Your task to perform on an android device: change keyboard looks Image 0: 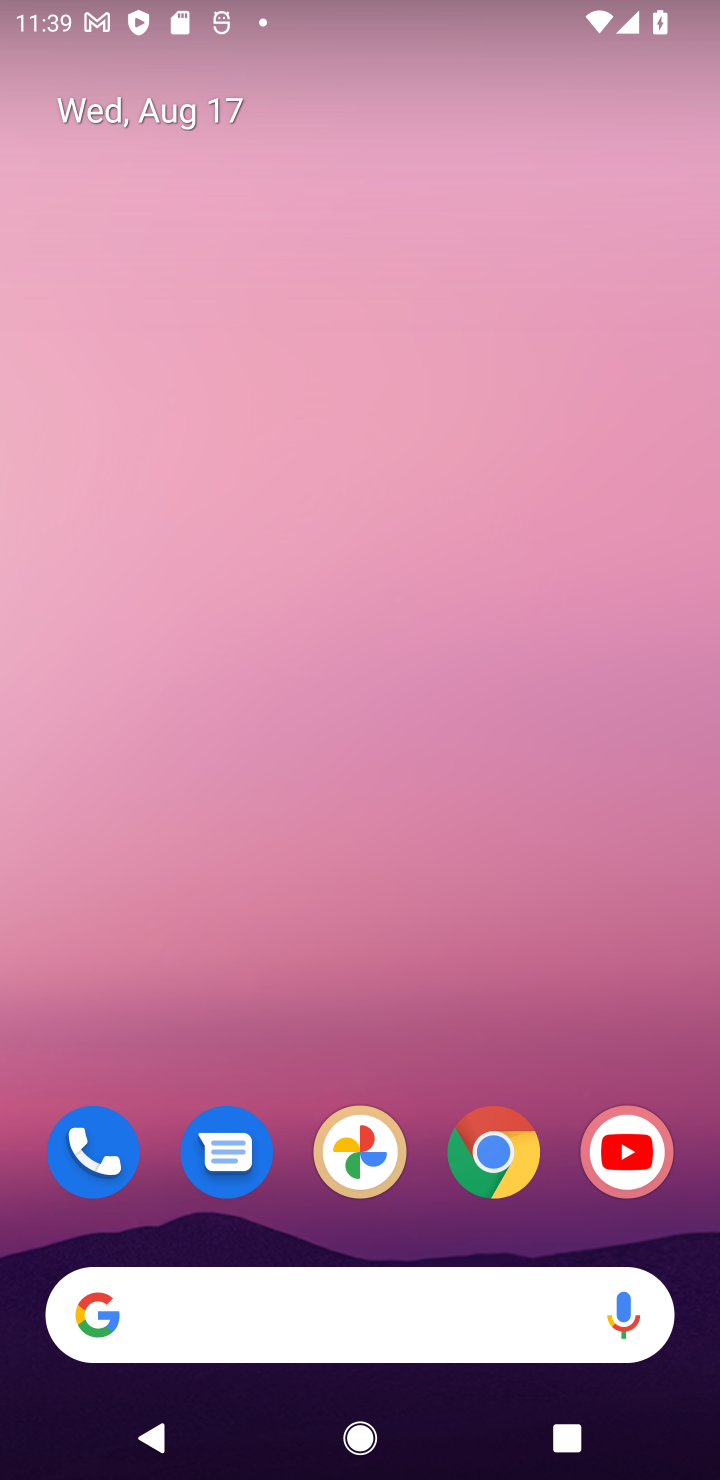
Step 0: drag from (716, 967) to (385, 59)
Your task to perform on an android device: change keyboard looks Image 1: 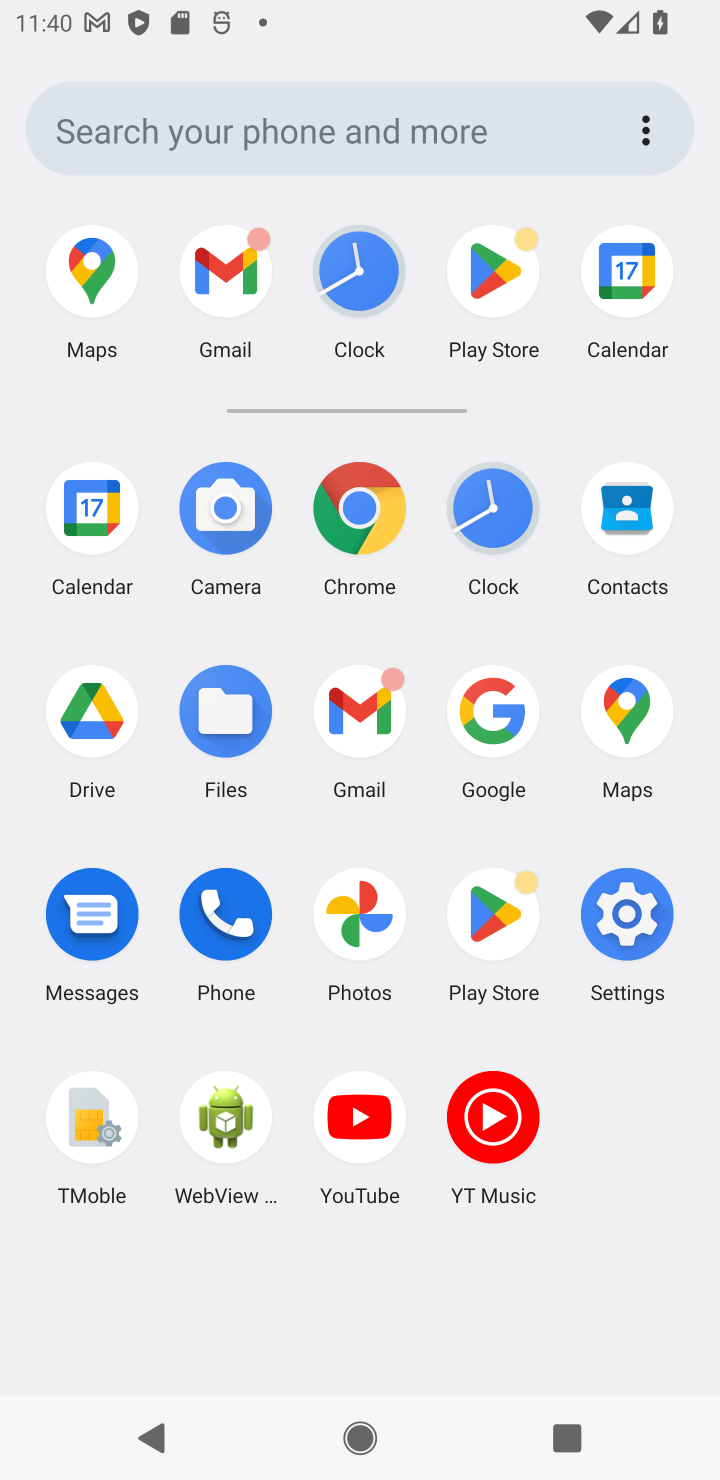
Step 1: click (626, 934)
Your task to perform on an android device: change keyboard looks Image 2: 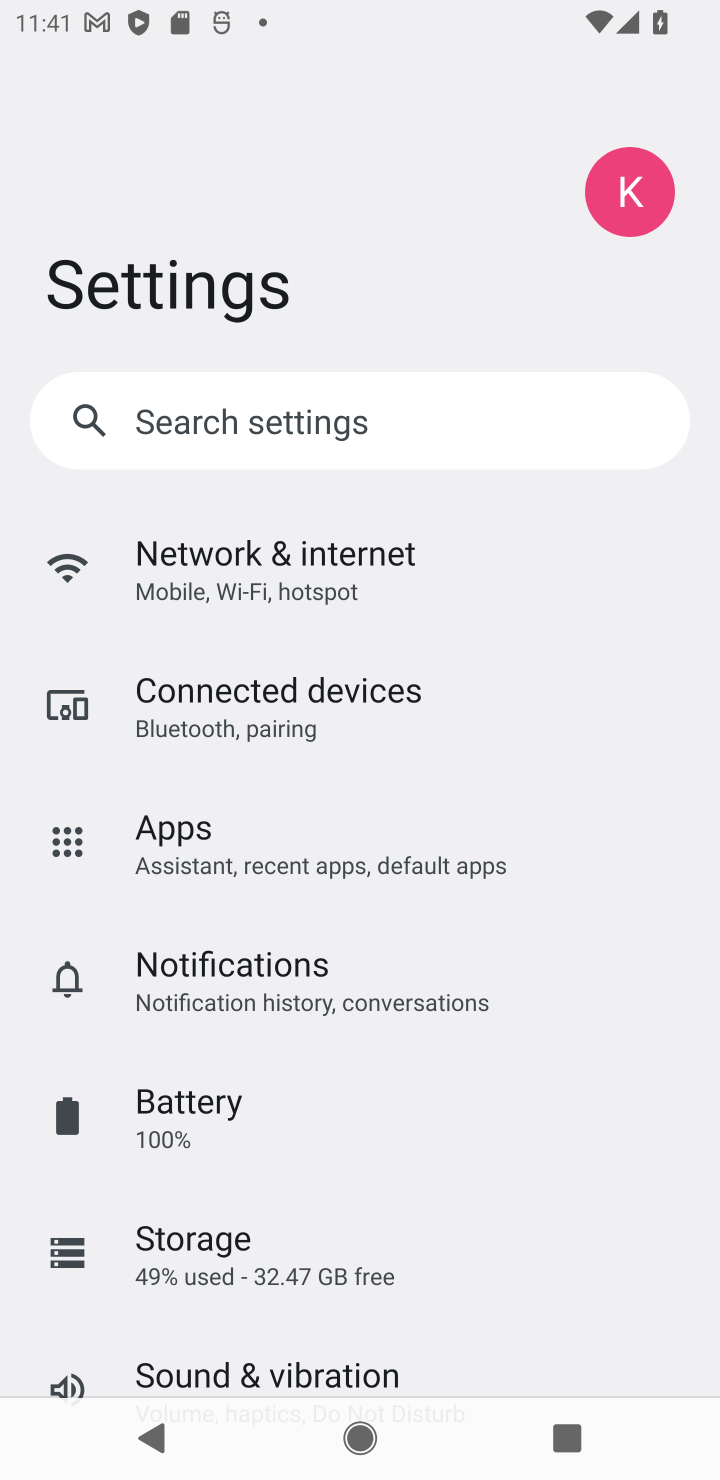
Step 2: drag from (576, 1322) to (303, 55)
Your task to perform on an android device: change keyboard looks Image 3: 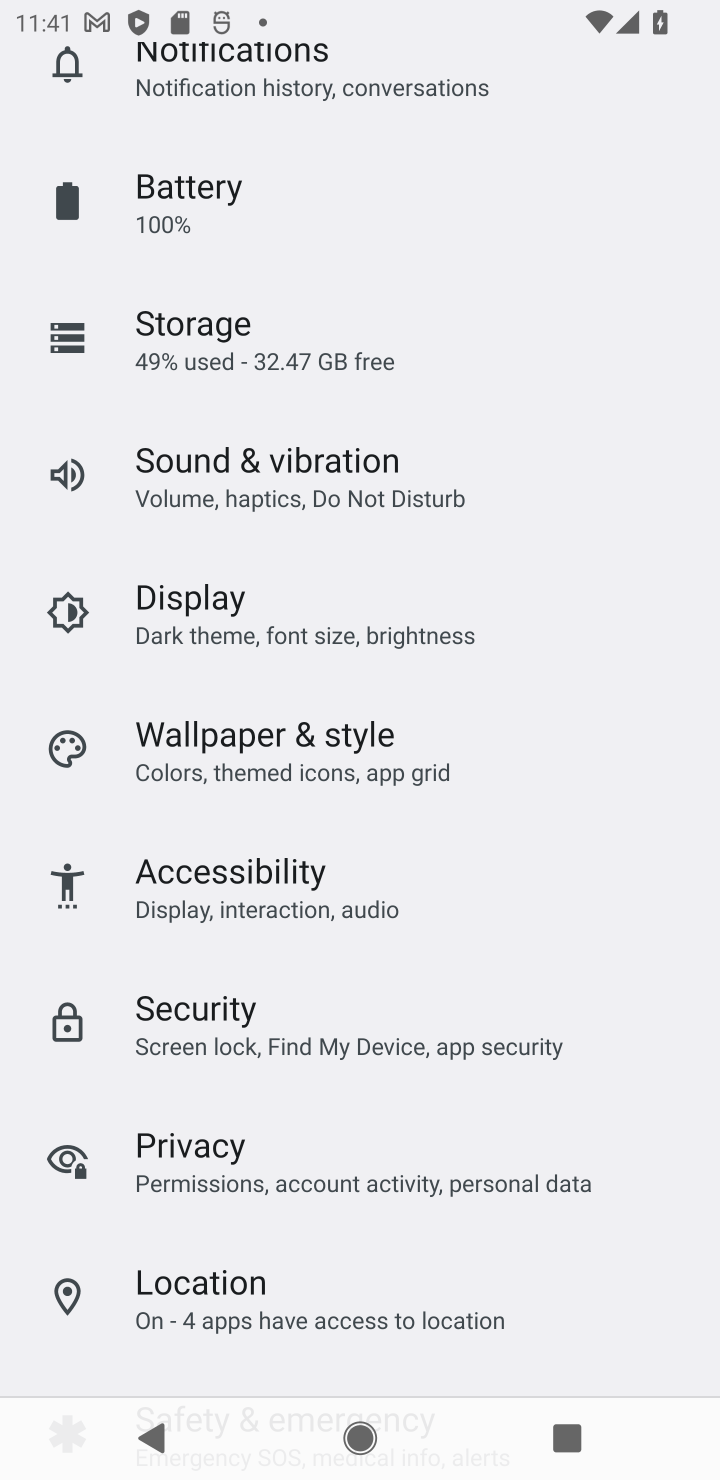
Step 3: drag from (236, 1306) to (282, 28)
Your task to perform on an android device: change keyboard looks Image 4: 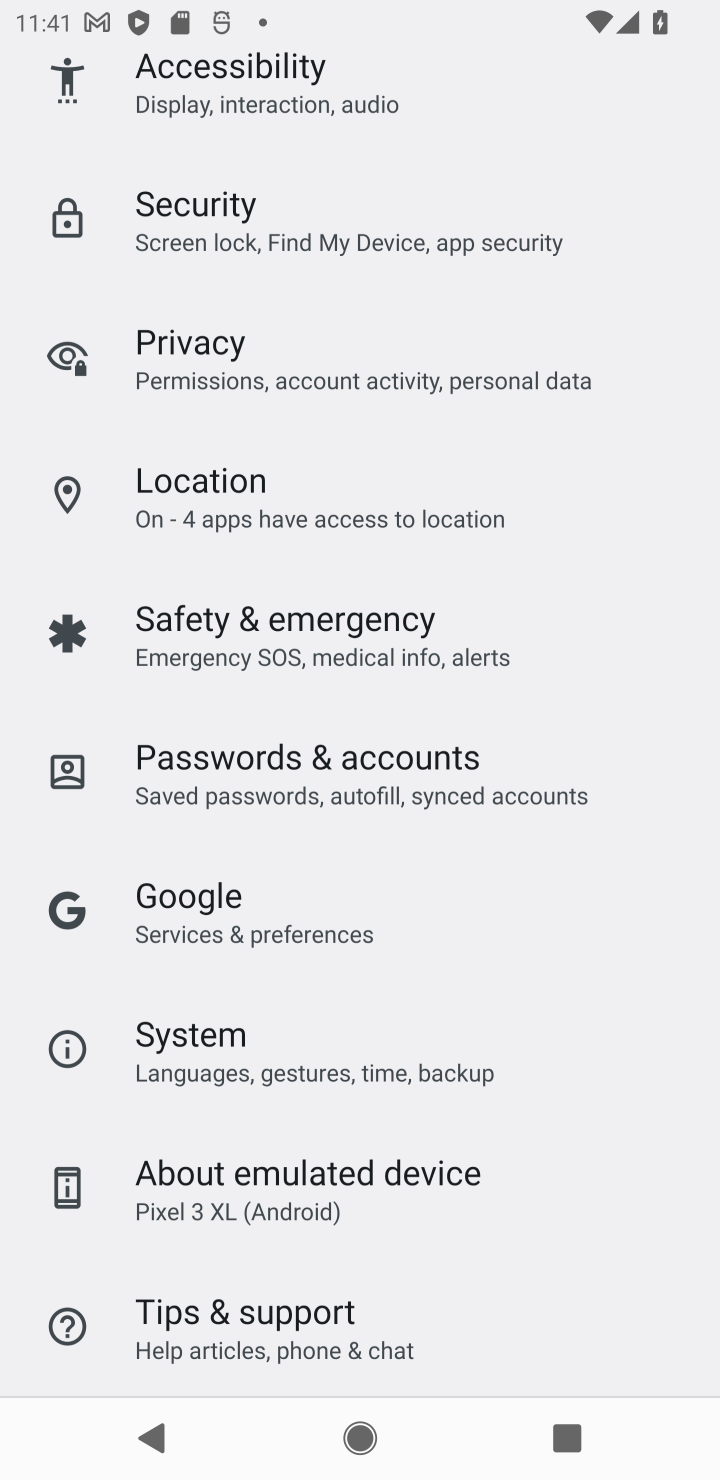
Step 4: drag from (261, 1307) to (227, 28)
Your task to perform on an android device: change keyboard looks Image 5: 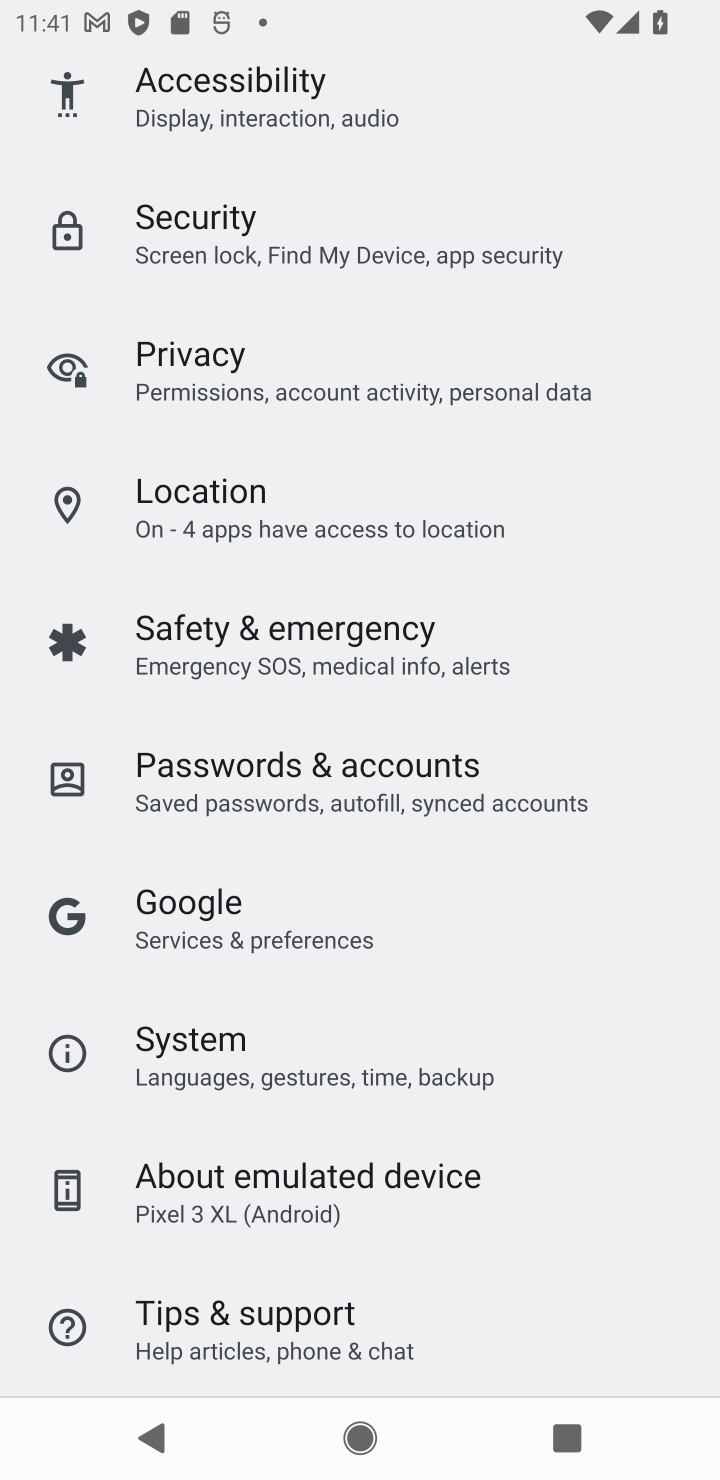
Step 5: click (244, 1072)
Your task to perform on an android device: change keyboard looks Image 6: 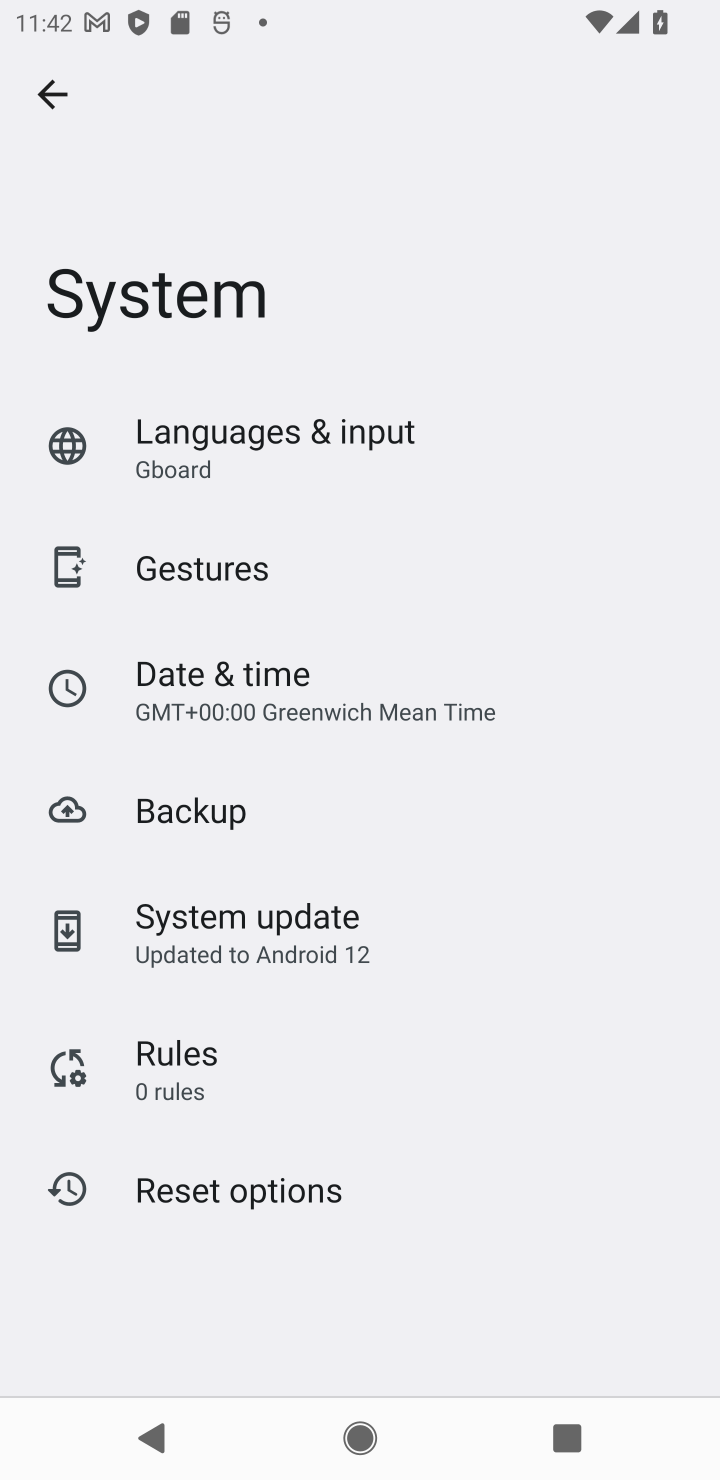
Step 6: click (219, 410)
Your task to perform on an android device: change keyboard looks Image 7: 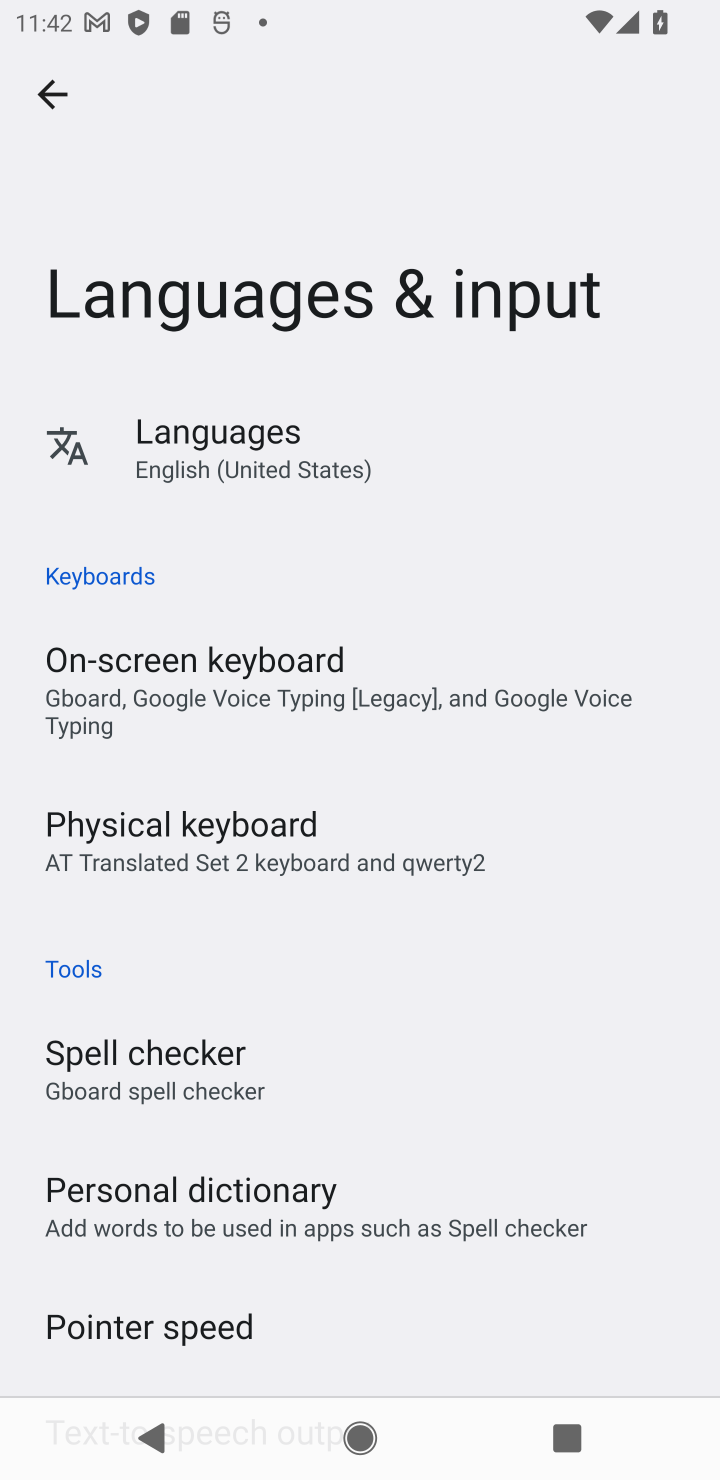
Step 7: click (226, 496)
Your task to perform on an android device: change keyboard looks Image 8: 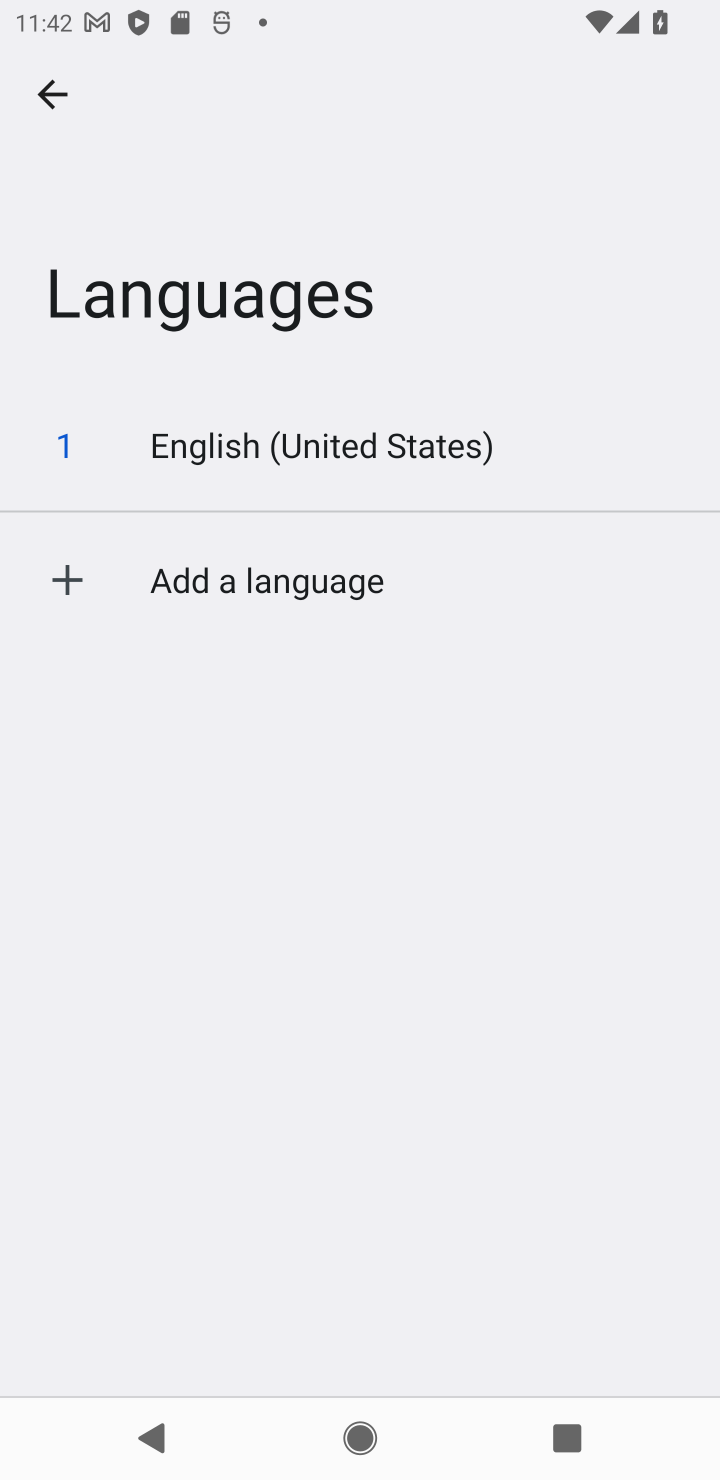
Step 8: task complete